Your task to perform on an android device: Open Google Chrome Image 0: 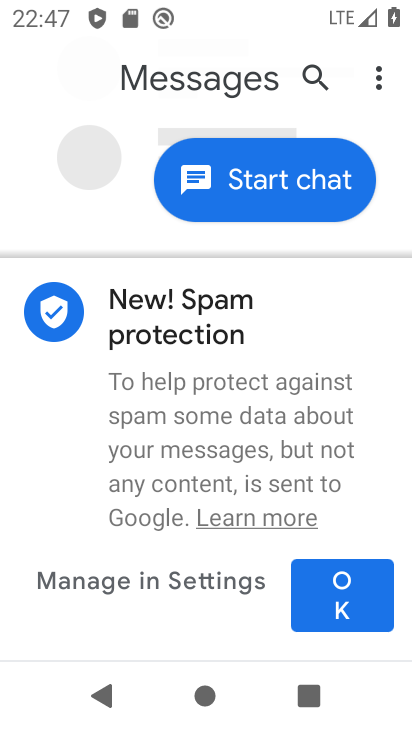
Step 0: press home button
Your task to perform on an android device: Open Google Chrome Image 1: 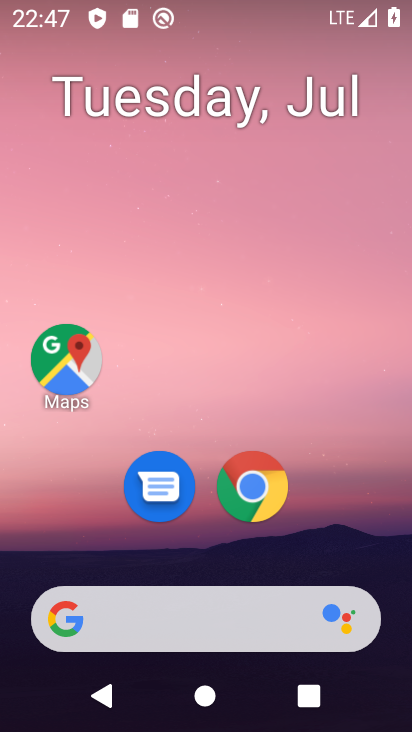
Step 1: drag from (352, 529) to (359, 179)
Your task to perform on an android device: Open Google Chrome Image 2: 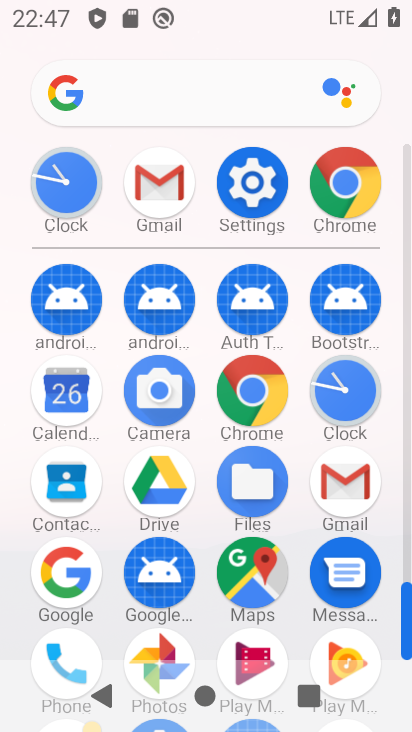
Step 2: click (259, 393)
Your task to perform on an android device: Open Google Chrome Image 3: 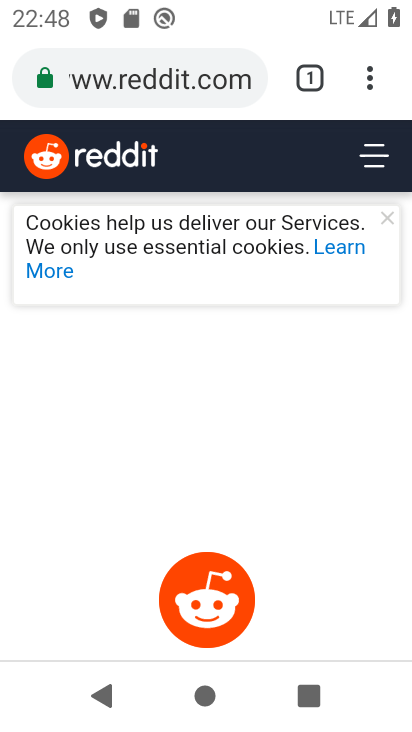
Step 3: task complete